Your task to perform on an android device: Open Yahoo.com Image 0: 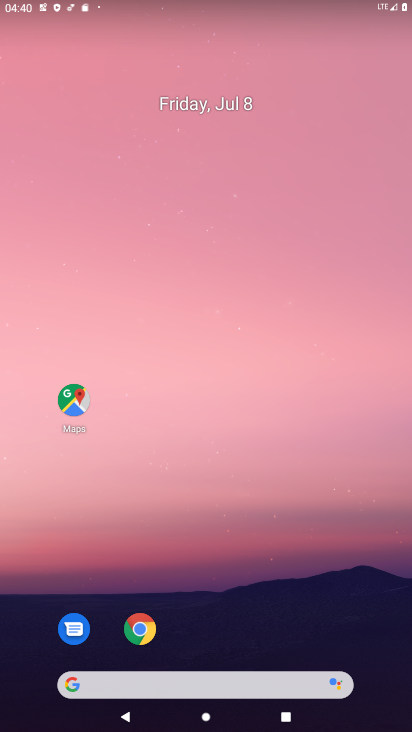
Step 0: click (141, 630)
Your task to perform on an android device: Open Yahoo.com Image 1: 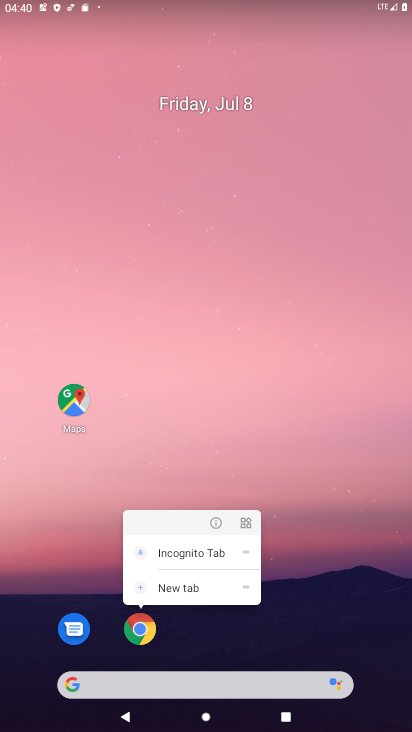
Step 1: click (140, 628)
Your task to perform on an android device: Open Yahoo.com Image 2: 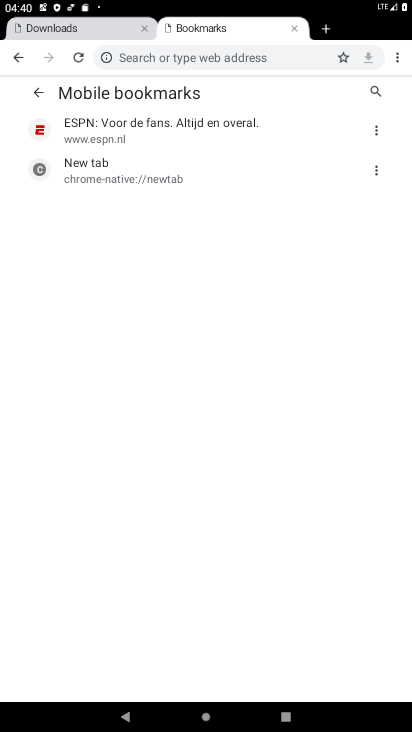
Step 2: click (396, 61)
Your task to perform on an android device: Open Yahoo.com Image 3: 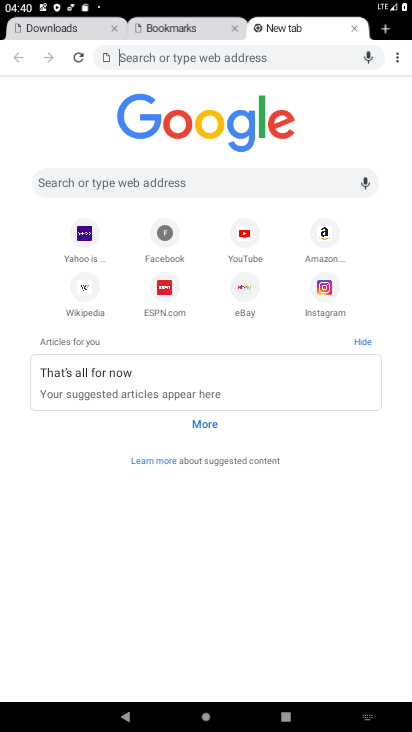
Step 3: click (399, 55)
Your task to perform on an android device: Open Yahoo.com Image 4: 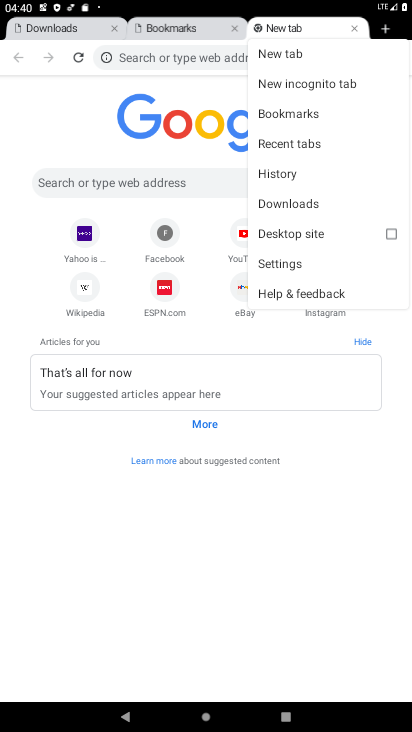
Step 4: click (285, 51)
Your task to perform on an android device: Open Yahoo.com Image 5: 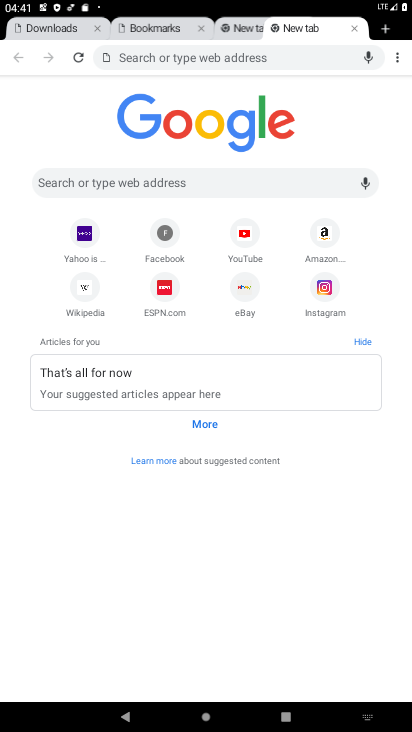
Step 5: click (80, 236)
Your task to perform on an android device: Open Yahoo.com Image 6: 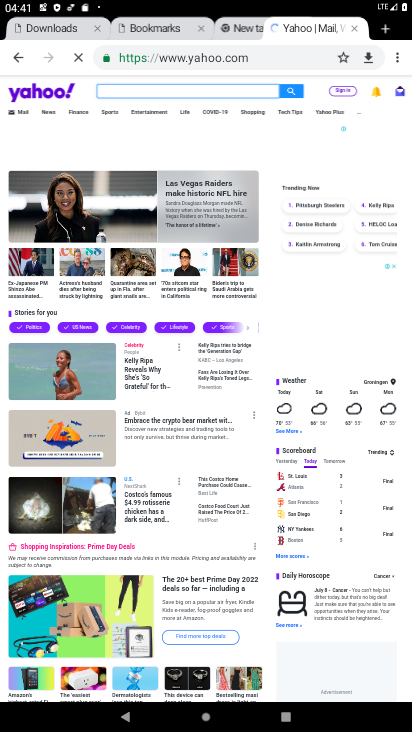
Step 6: task complete